Your task to perform on an android device: find photos in the google photos app Image 0: 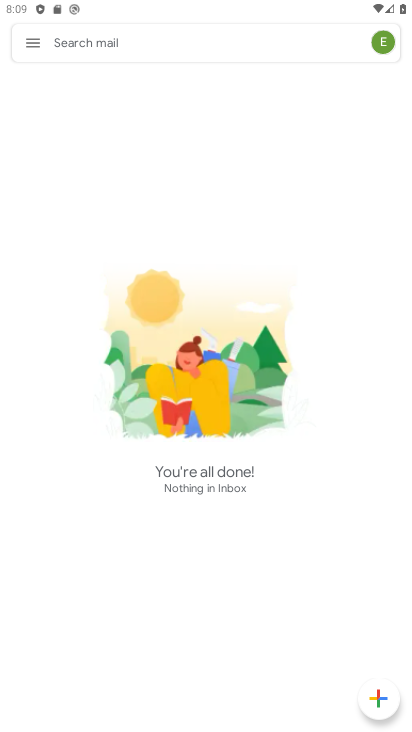
Step 0: press home button
Your task to perform on an android device: find photos in the google photos app Image 1: 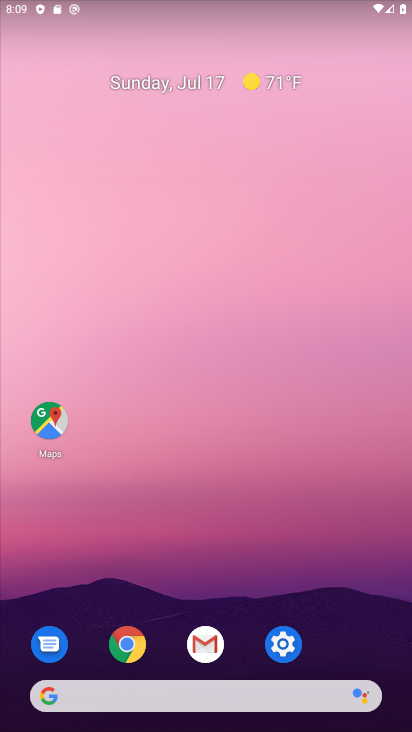
Step 1: drag from (340, 706) to (234, 183)
Your task to perform on an android device: find photos in the google photos app Image 2: 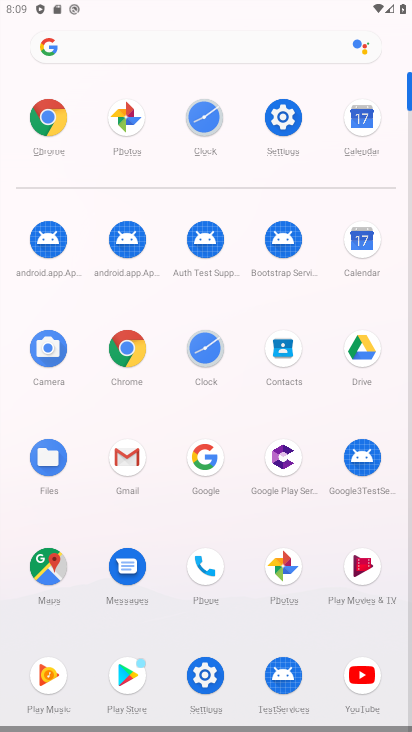
Step 2: click (272, 569)
Your task to perform on an android device: find photos in the google photos app Image 3: 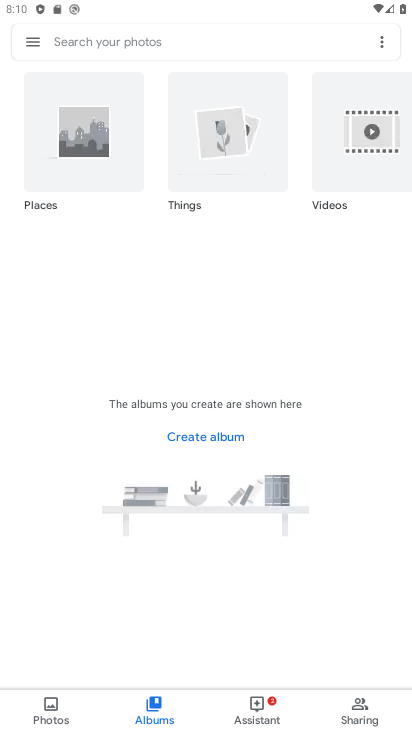
Step 3: task complete